Your task to perform on an android device: Set the phone to "Do not disturb". Image 0: 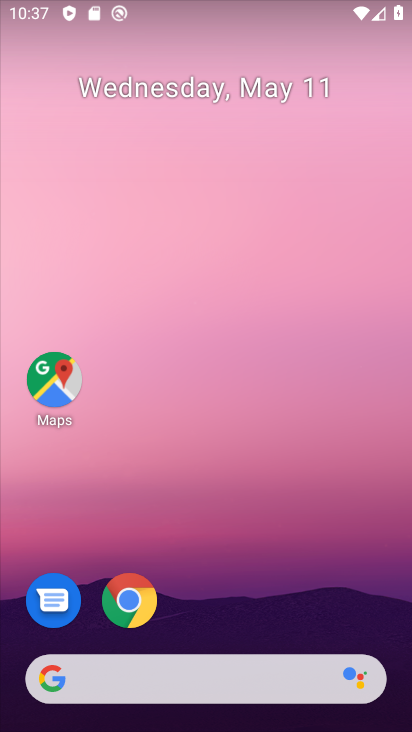
Step 0: drag from (234, 12) to (219, 365)
Your task to perform on an android device: Set the phone to "Do not disturb". Image 1: 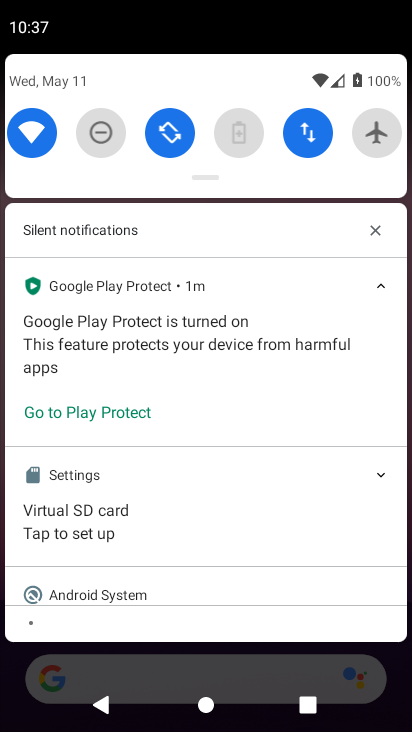
Step 1: click (107, 135)
Your task to perform on an android device: Set the phone to "Do not disturb". Image 2: 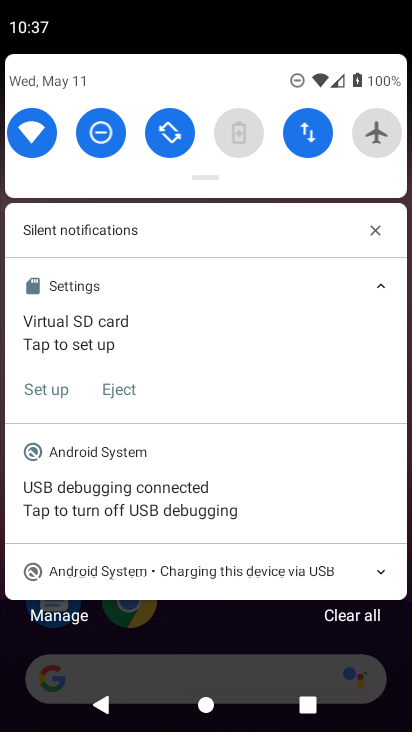
Step 2: task complete